Your task to perform on an android device: turn on translation in the chrome app Image 0: 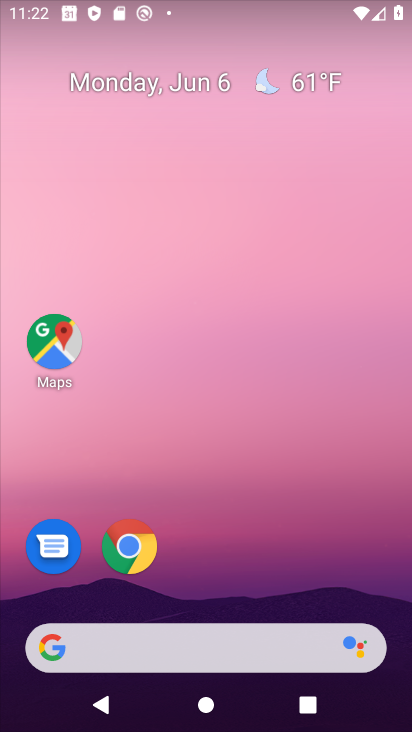
Step 0: click (138, 551)
Your task to perform on an android device: turn on translation in the chrome app Image 1: 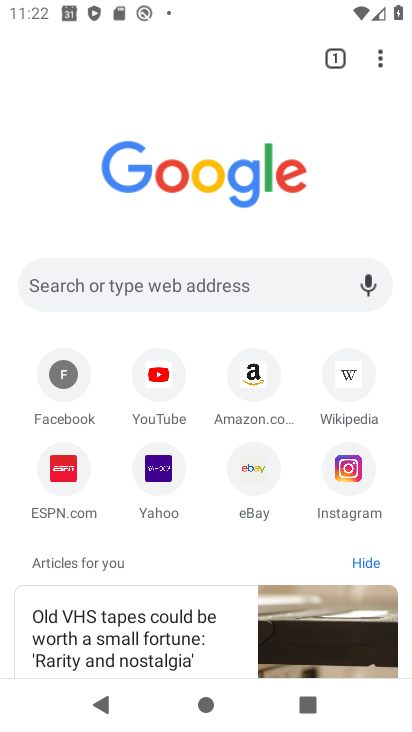
Step 1: drag from (390, 53) to (198, 495)
Your task to perform on an android device: turn on translation in the chrome app Image 2: 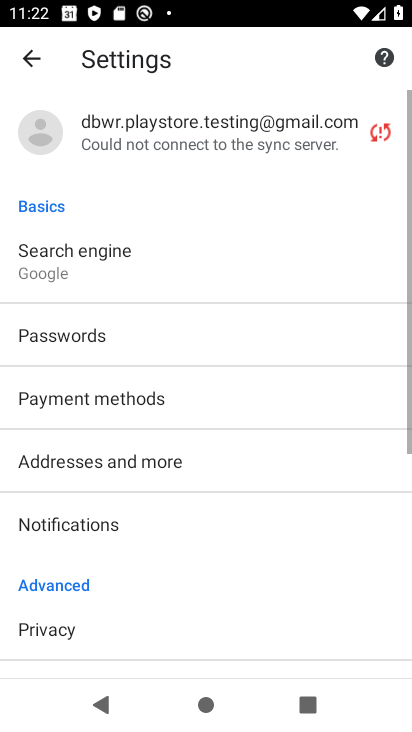
Step 2: drag from (130, 640) to (226, 104)
Your task to perform on an android device: turn on translation in the chrome app Image 3: 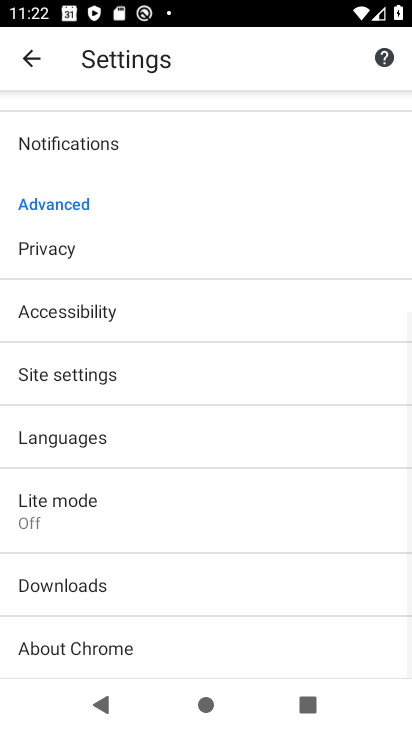
Step 3: click (64, 437)
Your task to perform on an android device: turn on translation in the chrome app Image 4: 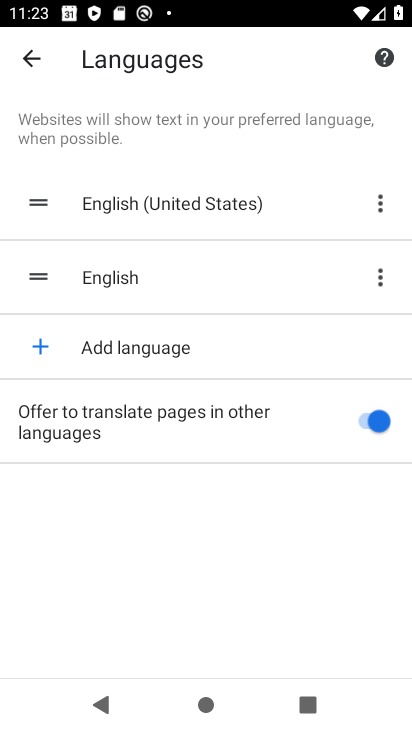
Step 4: task complete